Your task to perform on an android device: turn notification dots off Image 0: 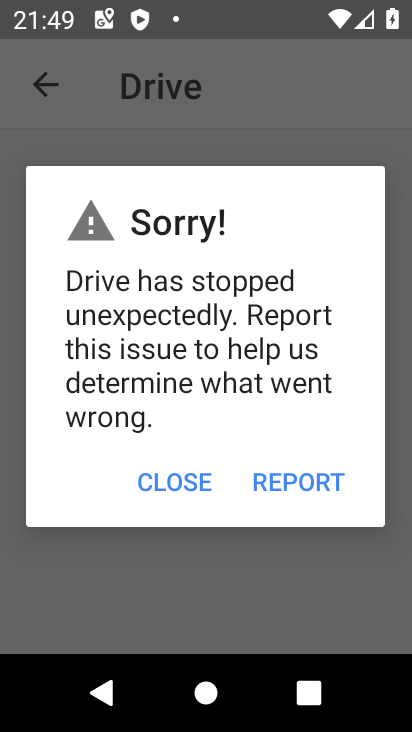
Step 0: press home button
Your task to perform on an android device: turn notification dots off Image 1: 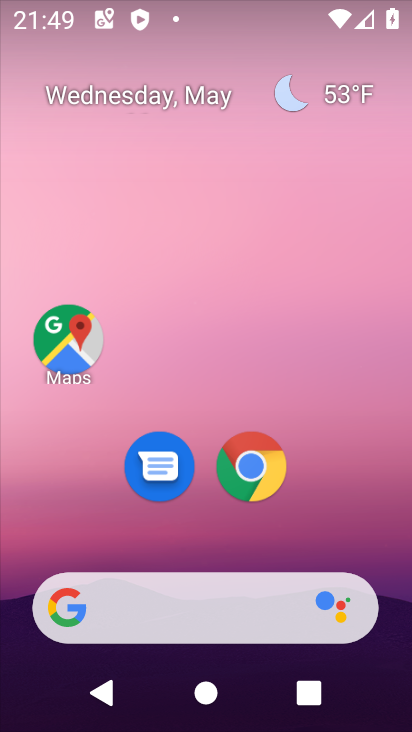
Step 1: drag from (200, 483) to (258, 91)
Your task to perform on an android device: turn notification dots off Image 2: 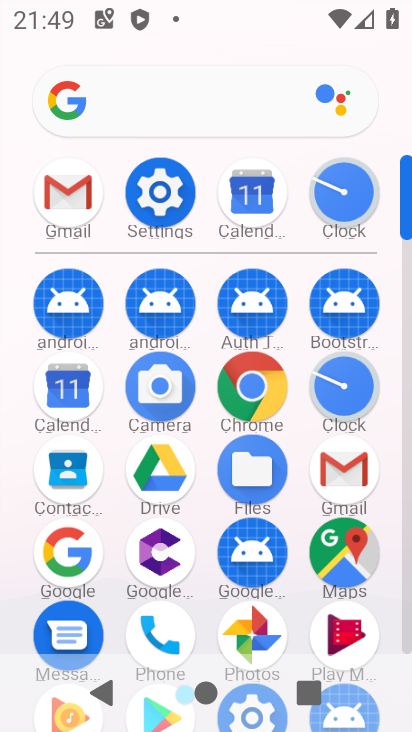
Step 2: click (153, 205)
Your task to perform on an android device: turn notification dots off Image 3: 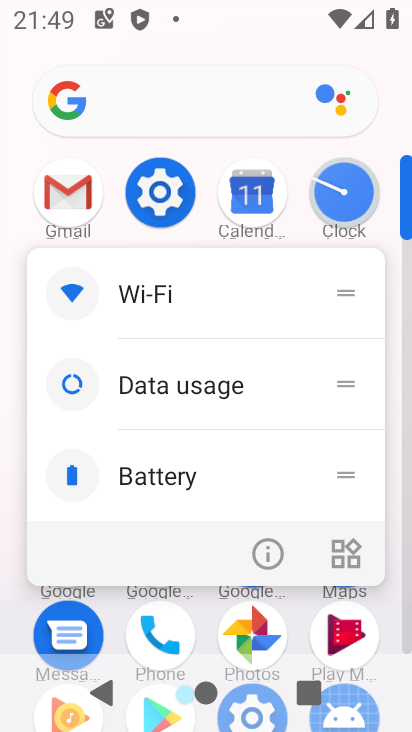
Step 3: click (263, 585)
Your task to perform on an android device: turn notification dots off Image 4: 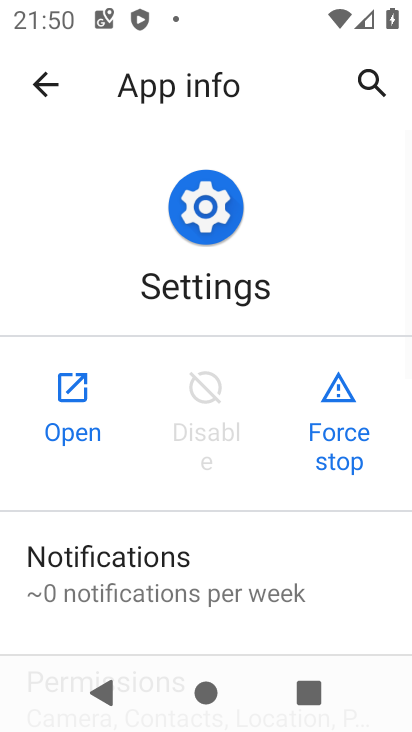
Step 4: click (92, 434)
Your task to perform on an android device: turn notification dots off Image 5: 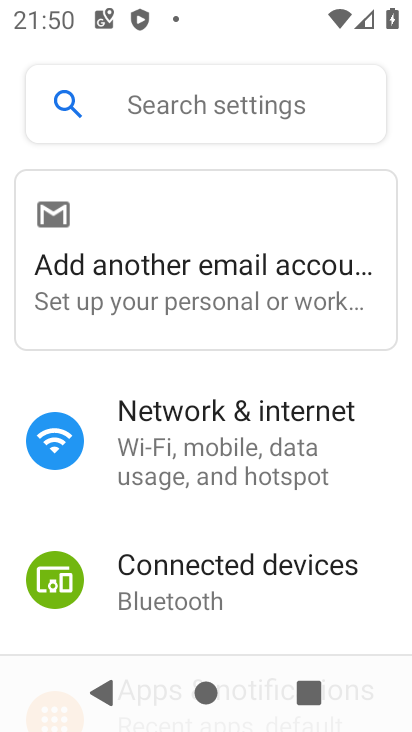
Step 5: drag from (242, 563) to (330, 28)
Your task to perform on an android device: turn notification dots off Image 6: 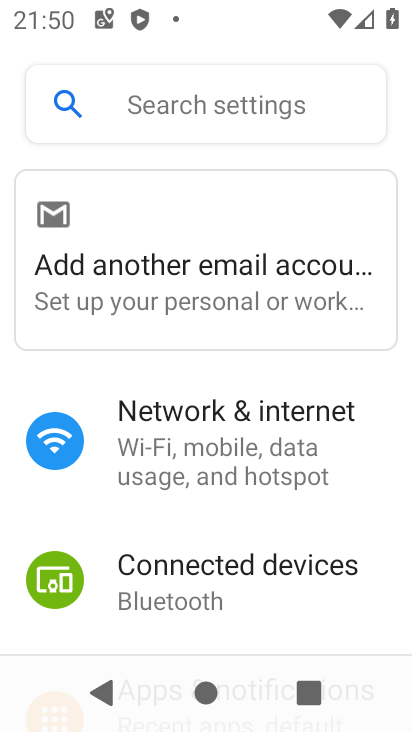
Step 6: drag from (188, 578) to (243, 111)
Your task to perform on an android device: turn notification dots off Image 7: 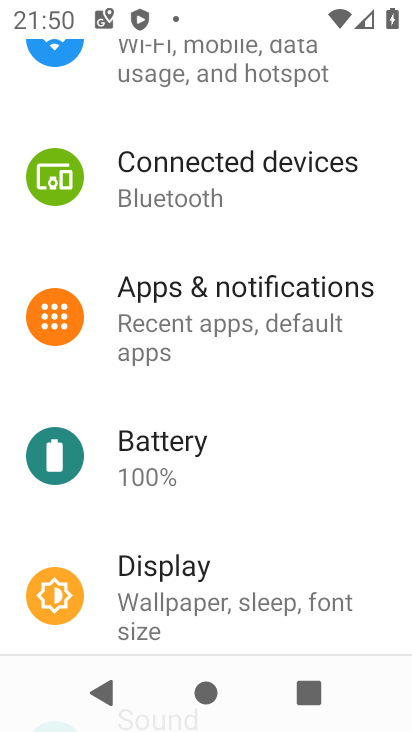
Step 7: drag from (253, 559) to (279, 269)
Your task to perform on an android device: turn notification dots off Image 8: 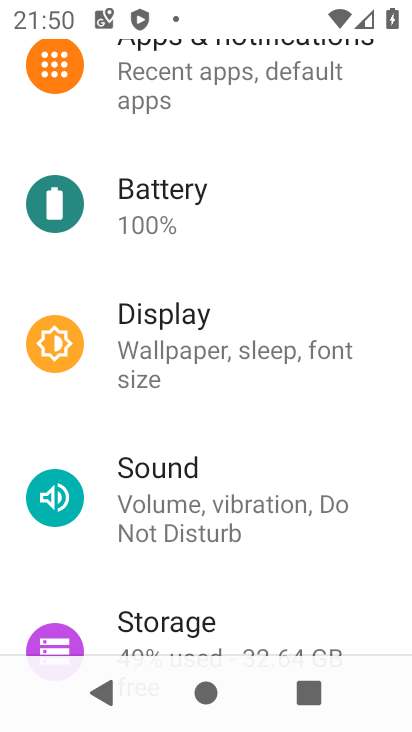
Step 8: click (216, 56)
Your task to perform on an android device: turn notification dots off Image 9: 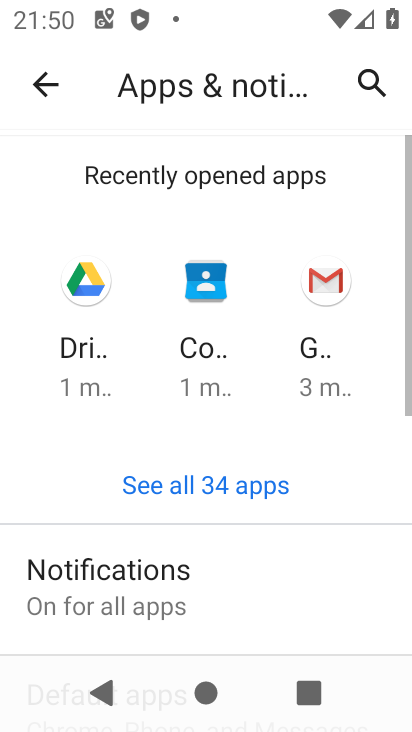
Step 9: drag from (202, 608) to (300, 121)
Your task to perform on an android device: turn notification dots off Image 10: 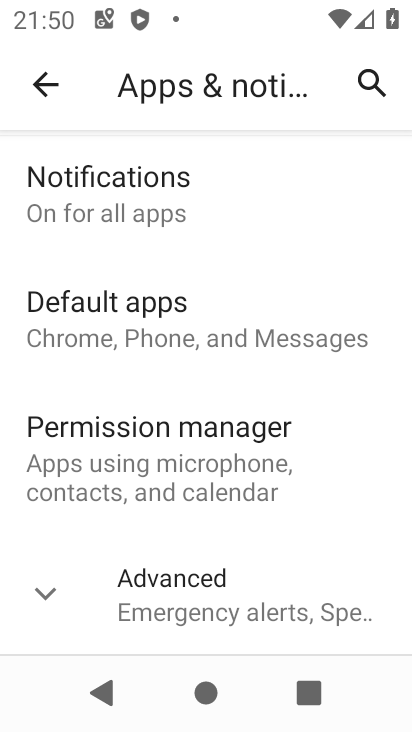
Step 10: click (159, 194)
Your task to perform on an android device: turn notification dots off Image 11: 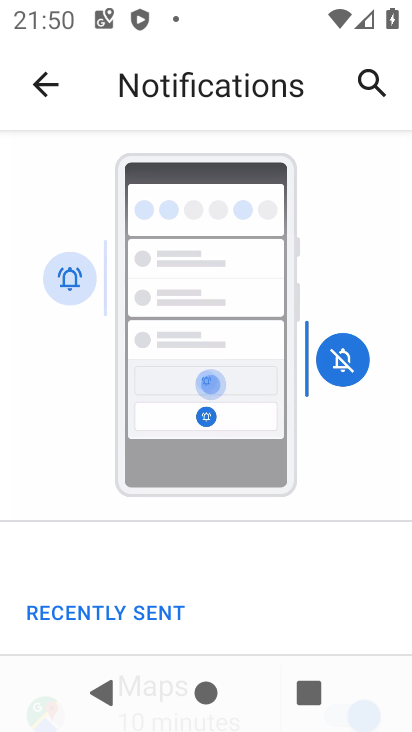
Step 11: drag from (194, 595) to (242, 137)
Your task to perform on an android device: turn notification dots off Image 12: 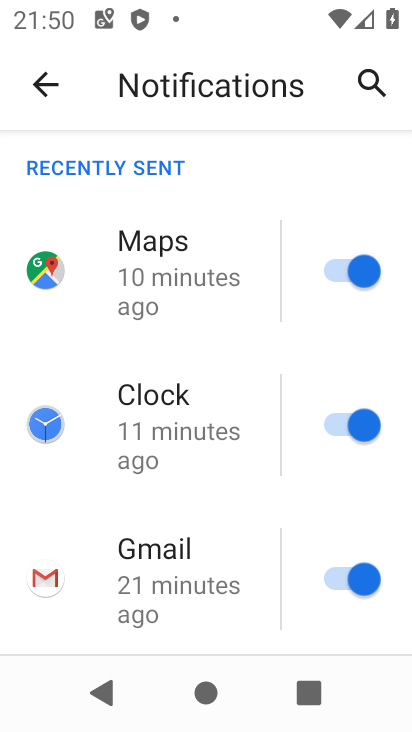
Step 12: drag from (236, 524) to (258, 136)
Your task to perform on an android device: turn notification dots off Image 13: 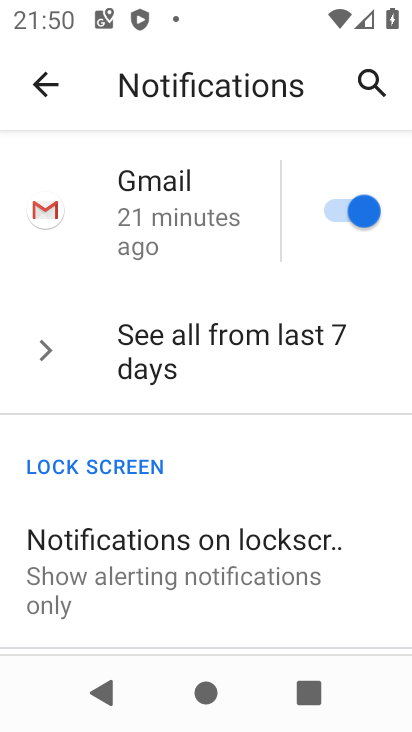
Step 13: drag from (162, 582) to (254, 128)
Your task to perform on an android device: turn notification dots off Image 14: 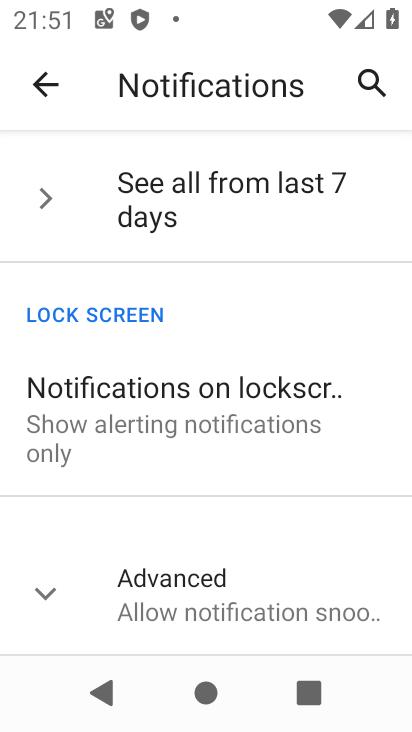
Step 14: click (203, 586)
Your task to perform on an android device: turn notification dots off Image 15: 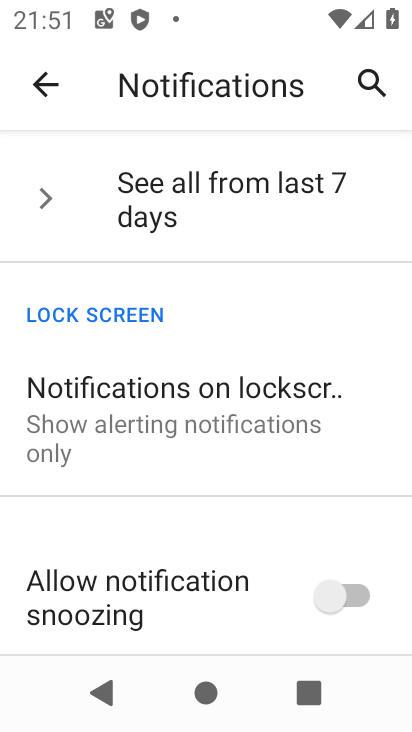
Step 15: drag from (244, 547) to (264, 329)
Your task to perform on an android device: turn notification dots off Image 16: 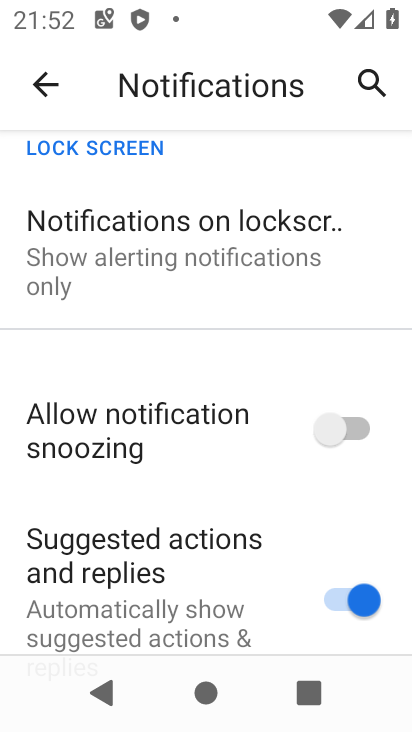
Step 16: drag from (207, 559) to (280, 159)
Your task to perform on an android device: turn notification dots off Image 17: 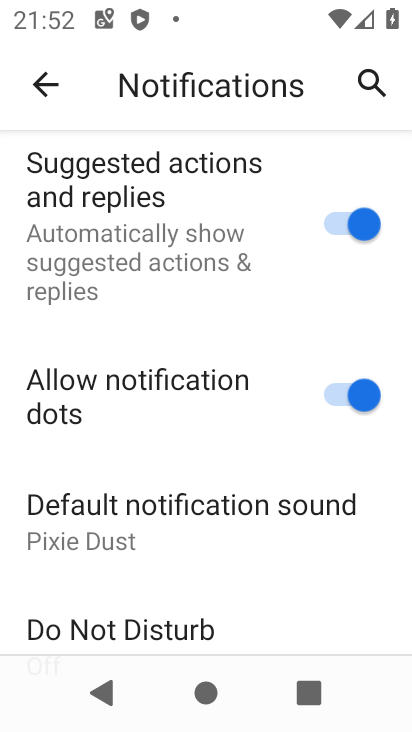
Step 17: click (341, 396)
Your task to perform on an android device: turn notification dots off Image 18: 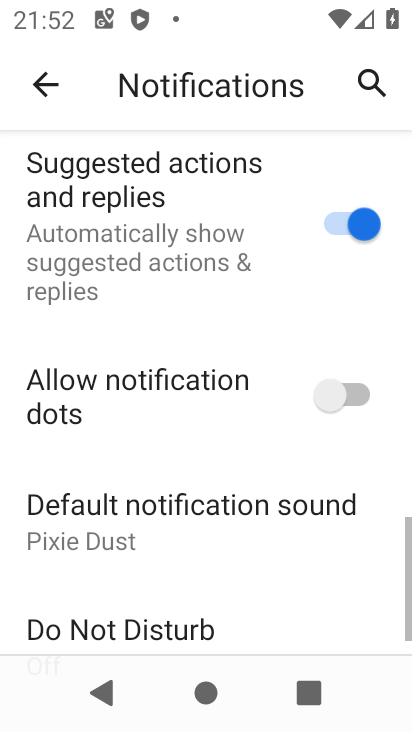
Step 18: task complete